Your task to perform on an android device: Go to notification settings Image 0: 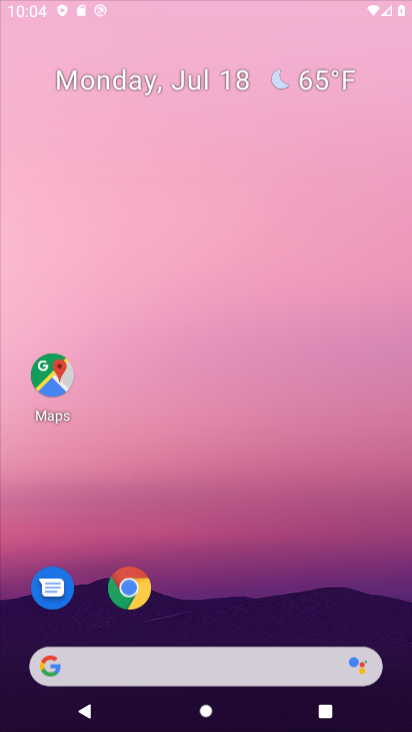
Step 0: press home button
Your task to perform on an android device: Go to notification settings Image 1: 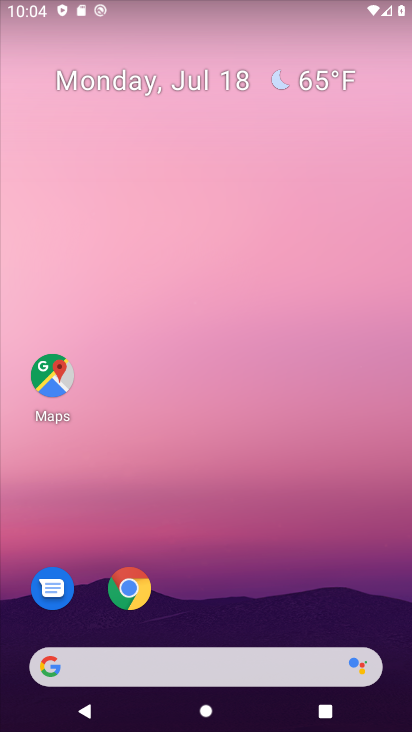
Step 1: drag from (297, 617) to (300, 211)
Your task to perform on an android device: Go to notification settings Image 2: 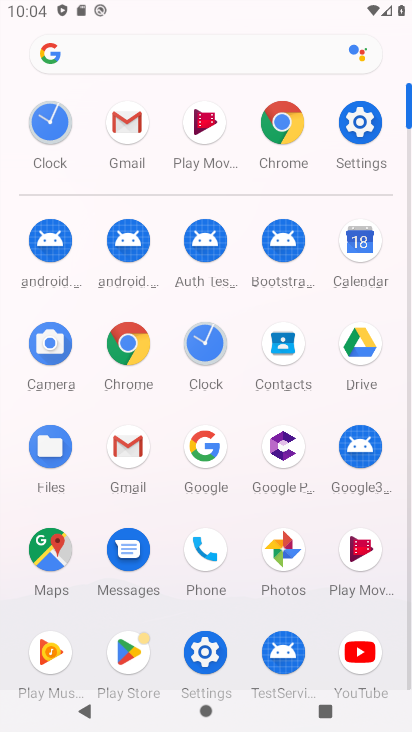
Step 2: click (351, 133)
Your task to perform on an android device: Go to notification settings Image 3: 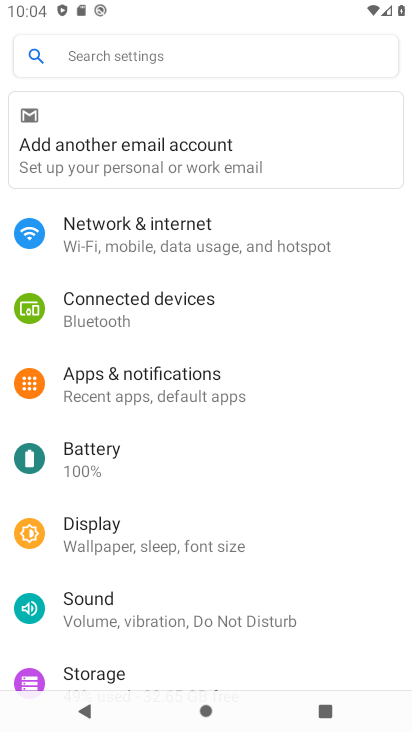
Step 3: click (138, 389)
Your task to perform on an android device: Go to notification settings Image 4: 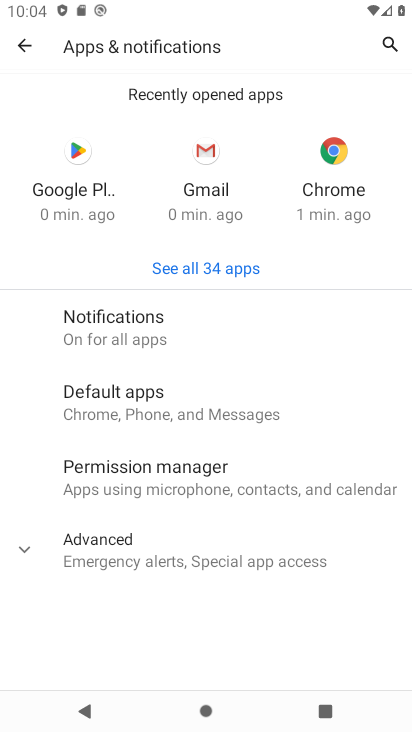
Step 4: click (114, 322)
Your task to perform on an android device: Go to notification settings Image 5: 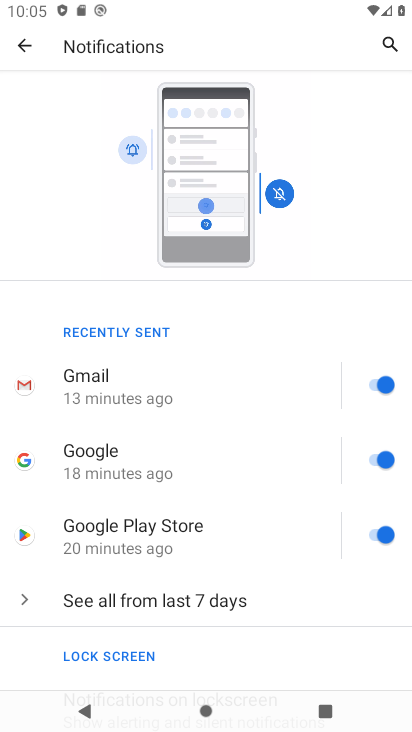
Step 5: click (136, 148)
Your task to perform on an android device: Go to notification settings Image 6: 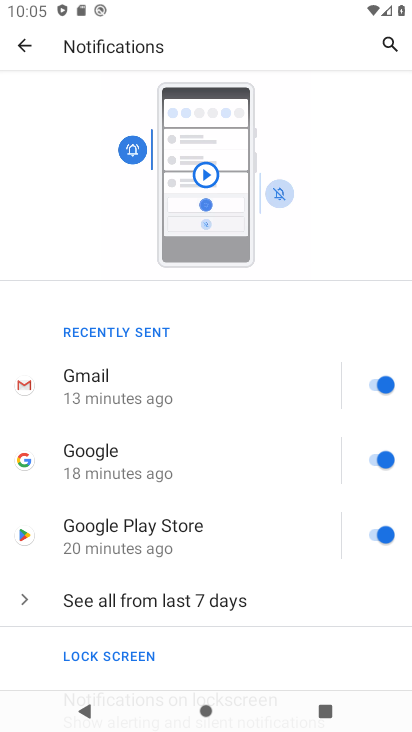
Step 6: task complete